Your task to perform on an android device: check out phone information Image 0: 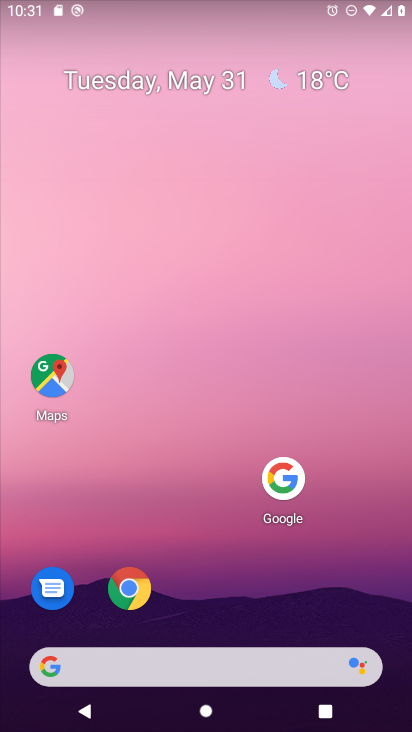
Step 0: drag from (178, 666) to (264, 146)
Your task to perform on an android device: check out phone information Image 1: 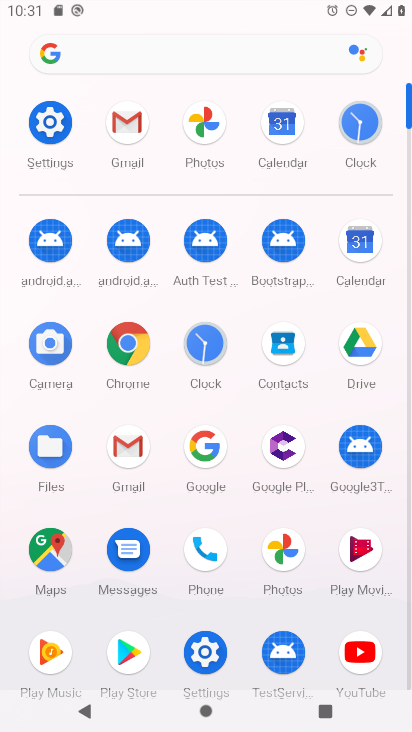
Step 1: click (50, 124)
Your task to perform on an android device: check out phone information Image 2: 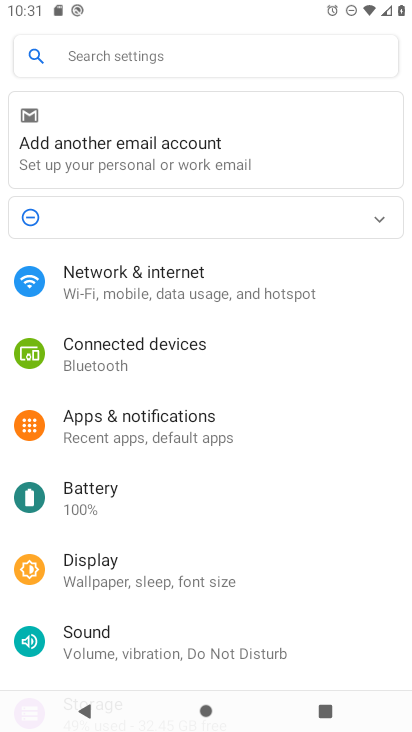
Step 2: drag from (147, 653) to (273, 229)
Your task to perform on an android device: check out phone information Image 3: 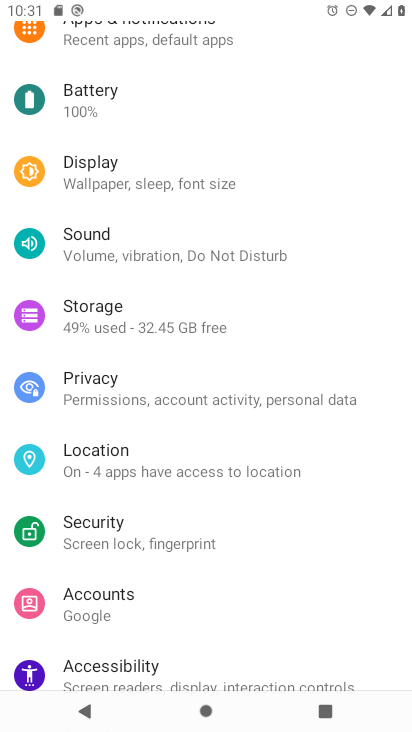
Step 3: drag from (172, 662) to (340, 35)
Your task to perform on an android device: check out phone information Image 4: 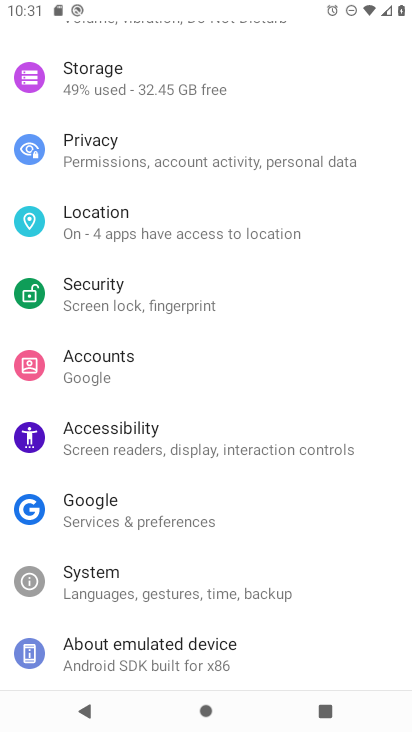
Step 4: click (155, 643)
Your task to perform on an android device: check out phone information Image 5: 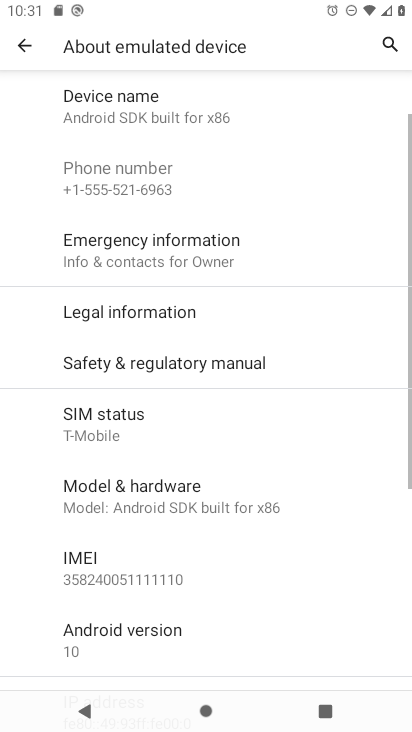
Step 5: task complete